Your task to perform on an android device: empty trash in google photos Image 0: 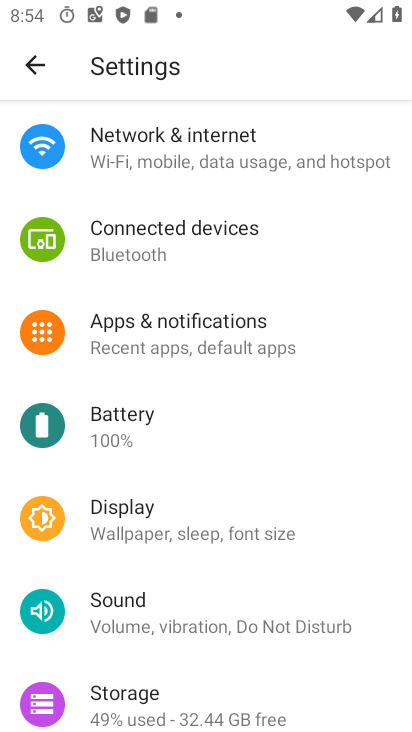
Step 0: press back button
Your task to perform on an android device: empty trash in google photos Image 1: 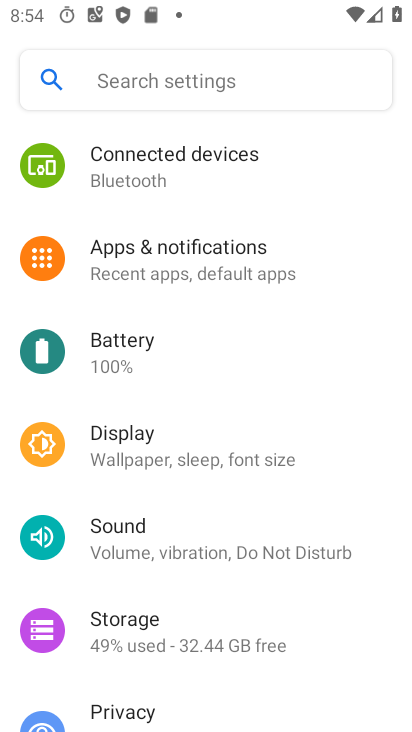
Step 1: press back button
Your task to perform on an android device: empty trash in google photos Image 2: 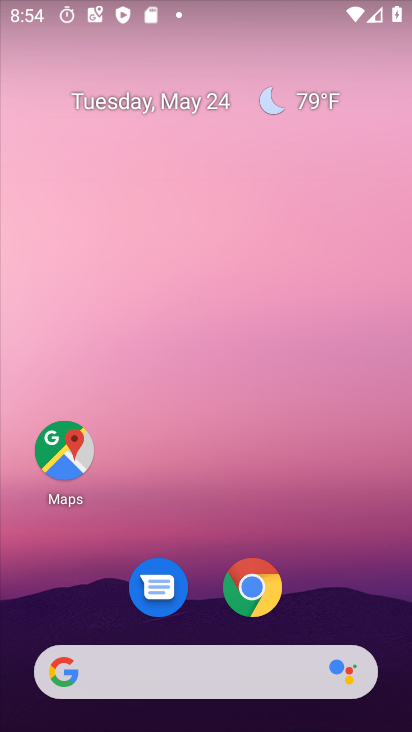
Step 2: drag from (316, 570) to (230, 193)
Your task to perform on an android device: empty trash in google photos Image 3: 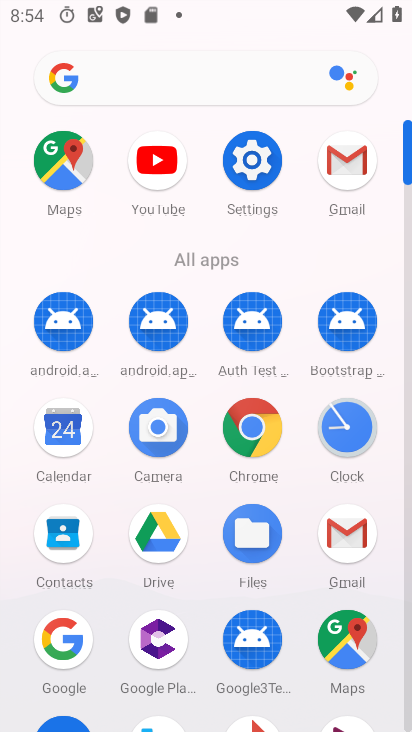
Step 3: drag from (207, 506) to (231, 323)
Your task to perform on an android device: empty trash in google photos Image 4: 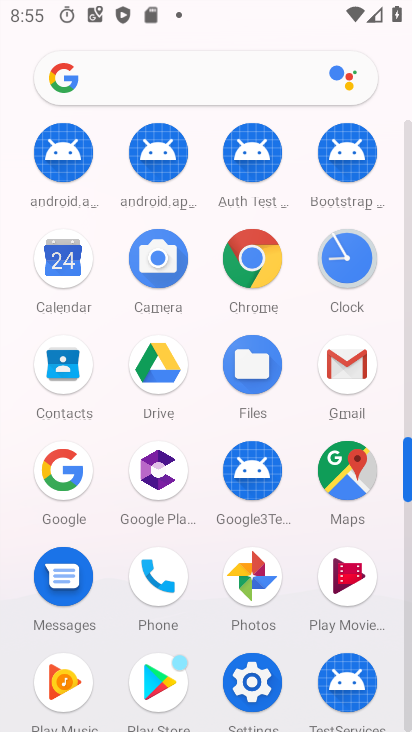
Step 4: click (253, 575)
Your task to perform on an android device: empty trash in google photos Image 5: 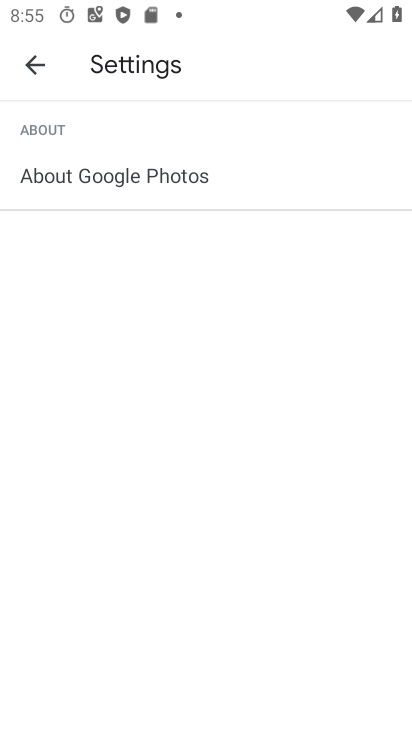
Step 5: click (41, 67)
Your task to perform on an android device: empty trash in google photos Image 6: 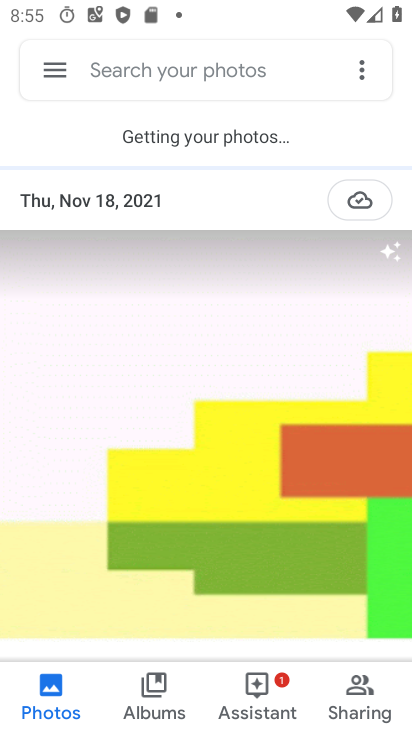
Step 6: click (54, 72)
Your task to perform on an android device: empty trash in google photos Image 7: 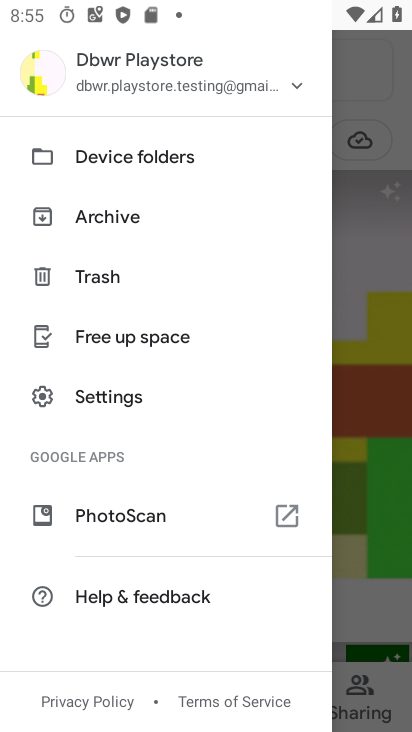
Step 7: click (103, 275)
Your task to perform on an android device: empty trash in google photos Image 8: 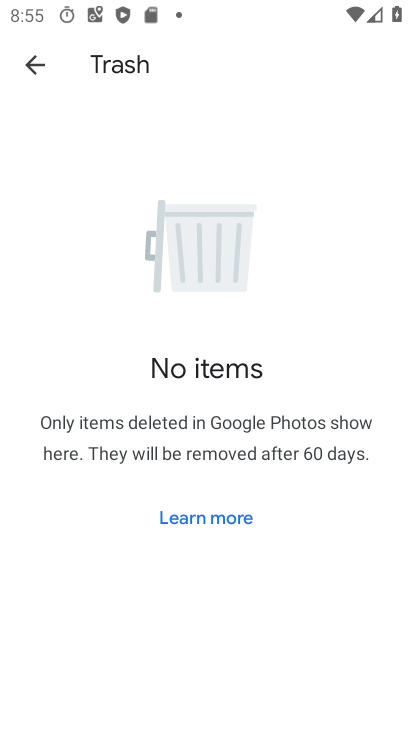
Step 8: task complete